Your task to perform on an android device: search for starred emails in the gmail app Image 0: 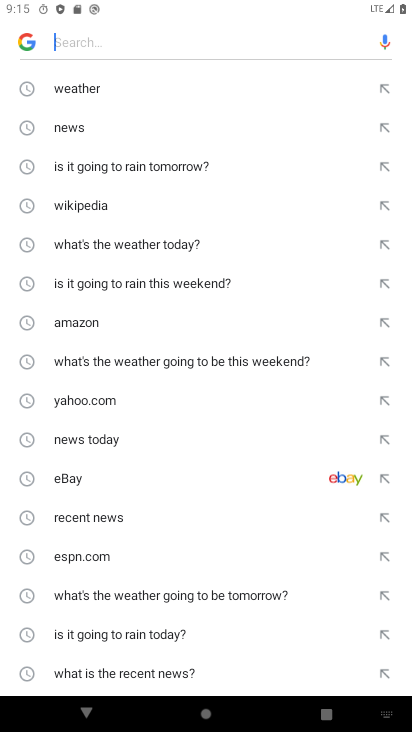
Step 0: press home button
Your task to perform on an android device: search for starred emails in the gmail app Image 1: 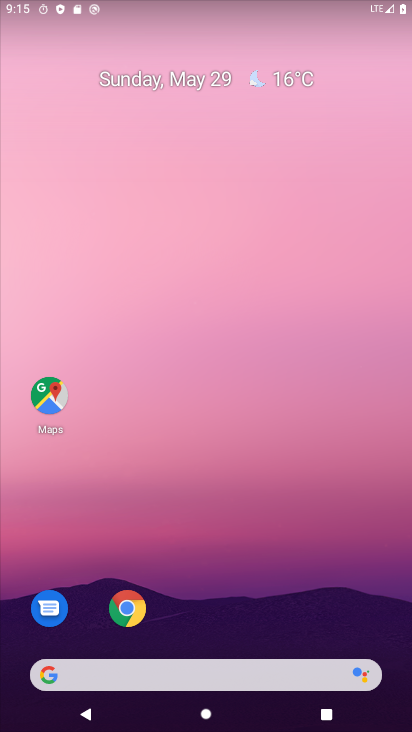
Step 1: drag from (249, 632) to (191, 5)
Your task to perform on an android device: search for starred emails in the gmail app Image 2: 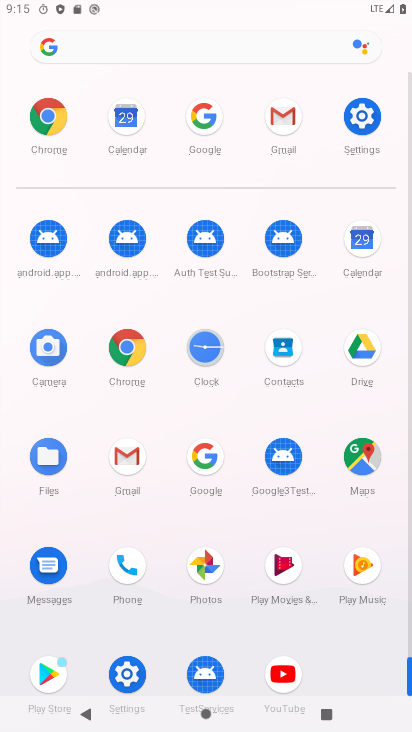
Step 2: click (283, 133)
Your task to perform on an android device: search for starred emails in the gmail app Image 3: 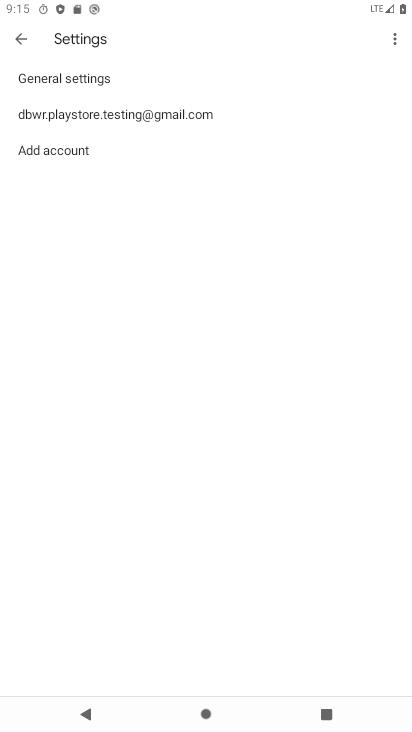
Step 3: click (25, 55)
Your task to perform on an android device: search for starred emails in the gmail app Image 4: 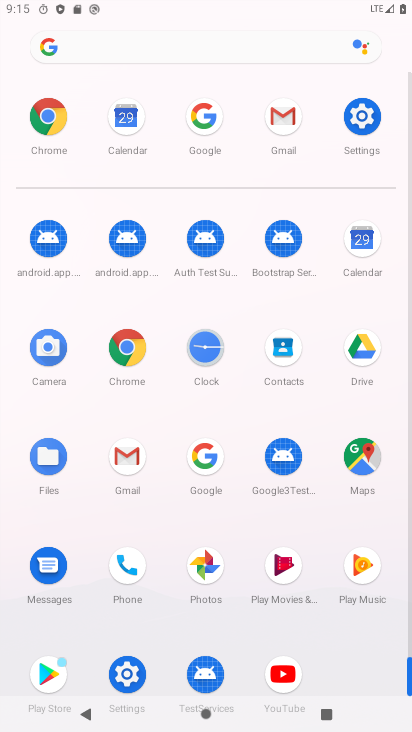
Step 4: click (292, 127)
Your task to perform on an android device: search for starred emails in the gmail app Image 5: 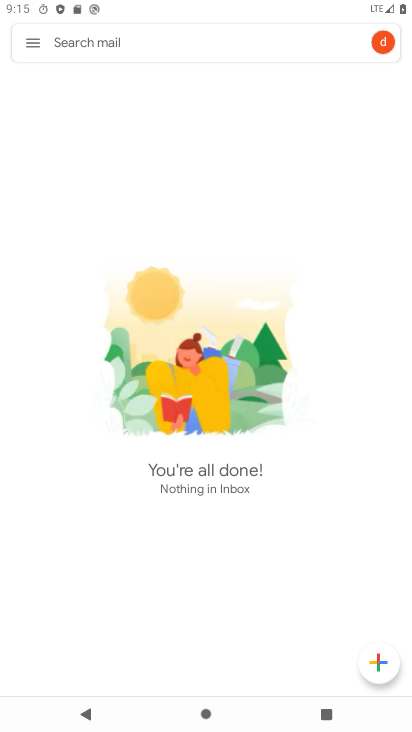
Step 5: click (39, 34)
Your task to perform on an android device: search for starred emails in the gmail app Image 6: 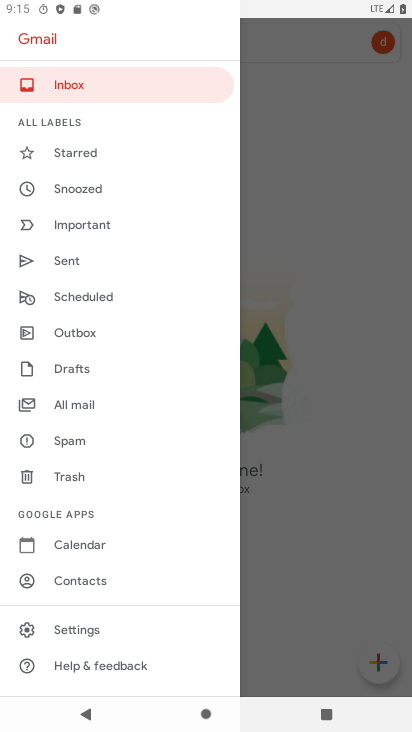
Step 6: click (82, 162)
Your task to perform on an android device: search for starred emails in the gmail app Image 7: 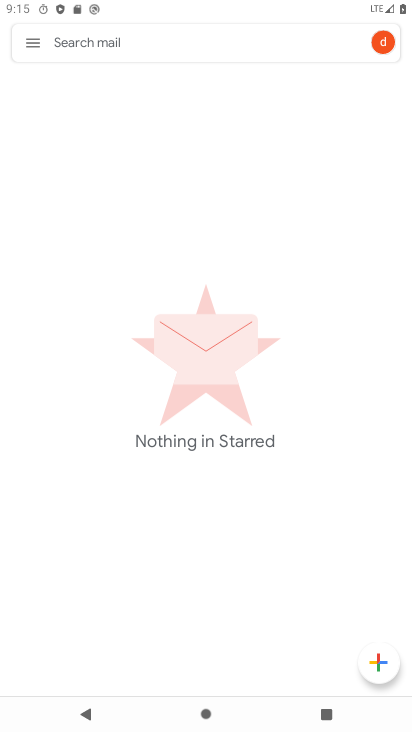
Step 7: task complete